Your task to perform on an android device: Open sound settings Image 0: 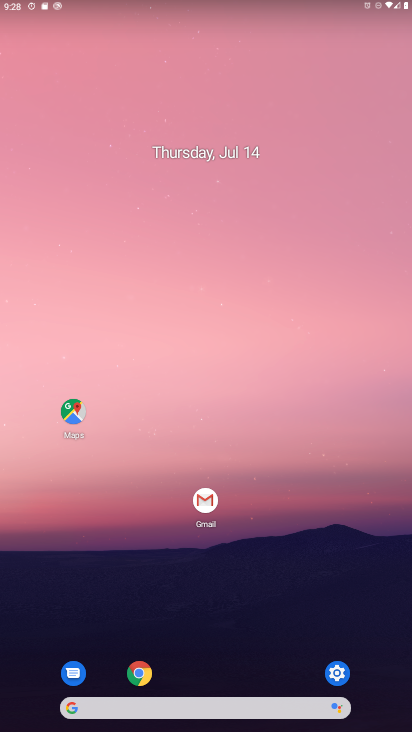
Step 0: press home button
Your task to perform on an android device: Open sound settings Image 1: 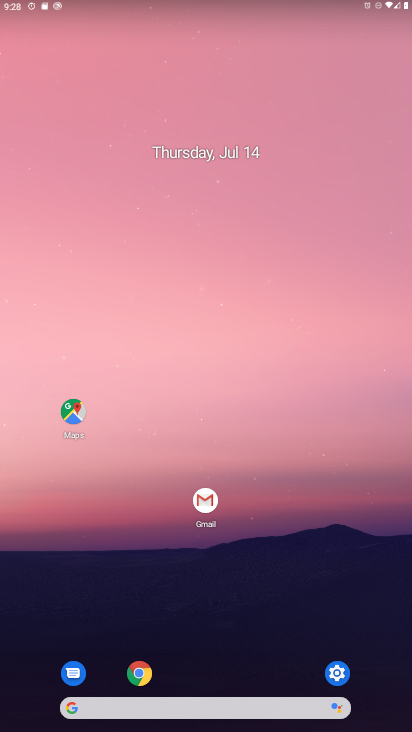
Step 1: click (335, 667)
Your task to perform on an android device: Open sound settings Image 2: 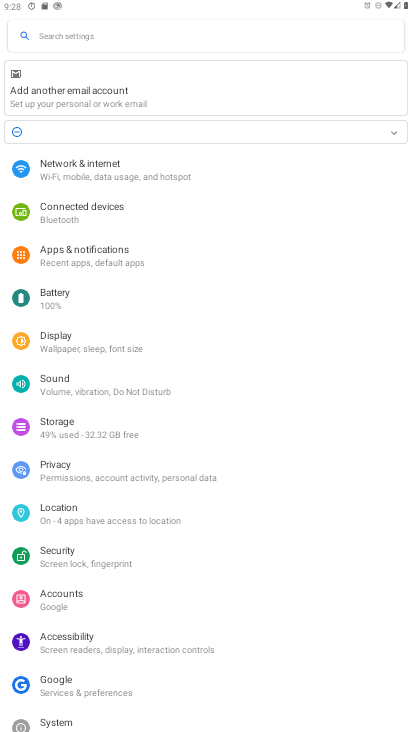
Step 2: click (79, 377)
Your task to perform on an android device: Open sound settings Image 3: 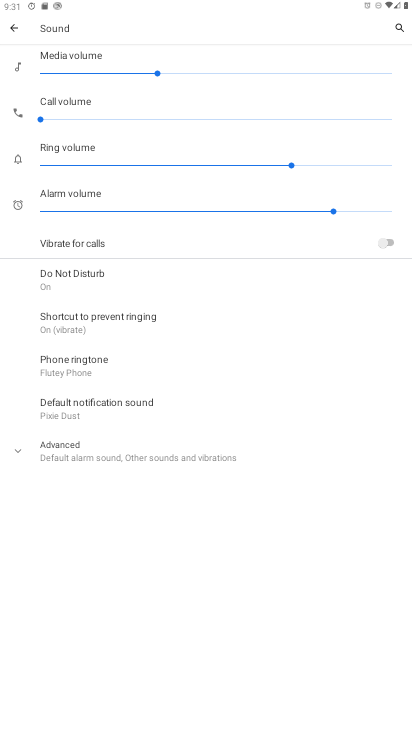
Step 3: task complete